Your task to perform on an android device: turn off airplane mode Image 0: 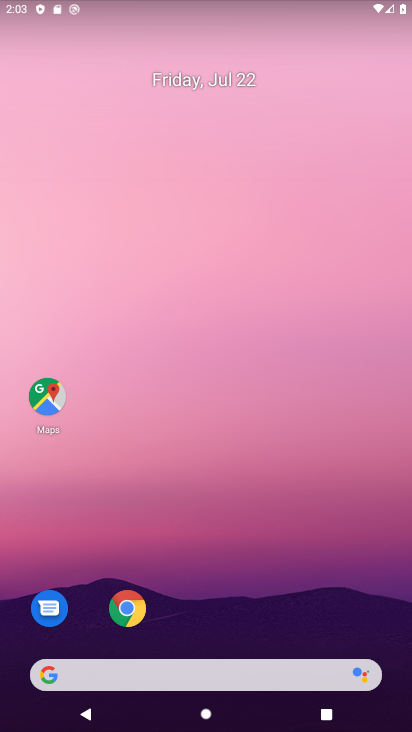
Step 0: press home button
Your task to perform on an android device: turn off airplane mode Image 1: 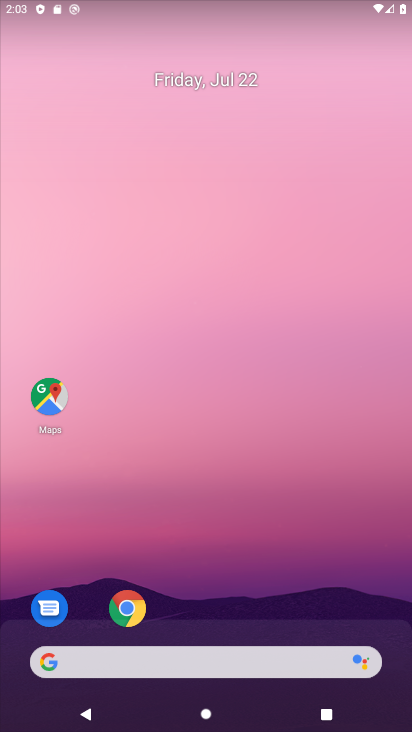
Step 1: task complete